Your task to perform on an android device: open wifi settings Image 0: 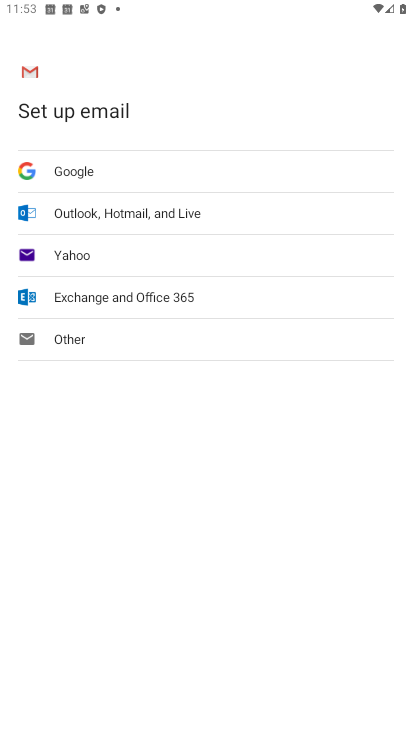
Step 0: press home button
Your task to perform on an android device: open wifi settings Image 1: 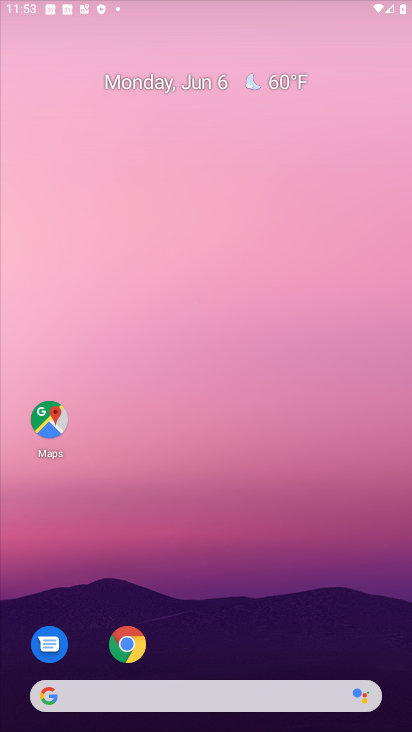
Step 1: drag from (228, 325) to (253, 67)
Your task to perform on an android device: open wifi settings Image 2: 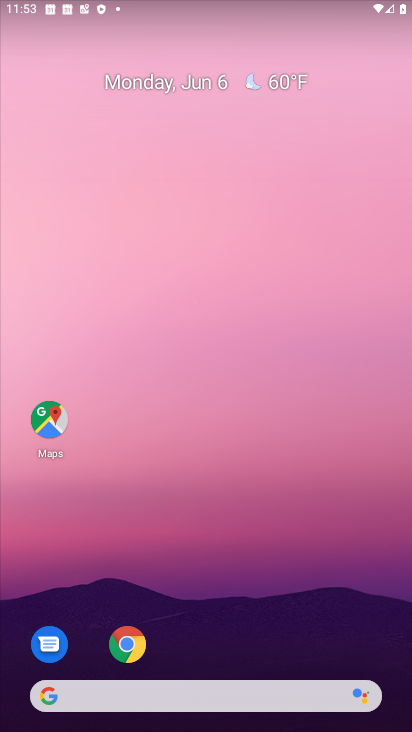
Step 2: drag from (237, 656) to (328, 77)
Your task to perform on an android device: open wifi settings Image 3: 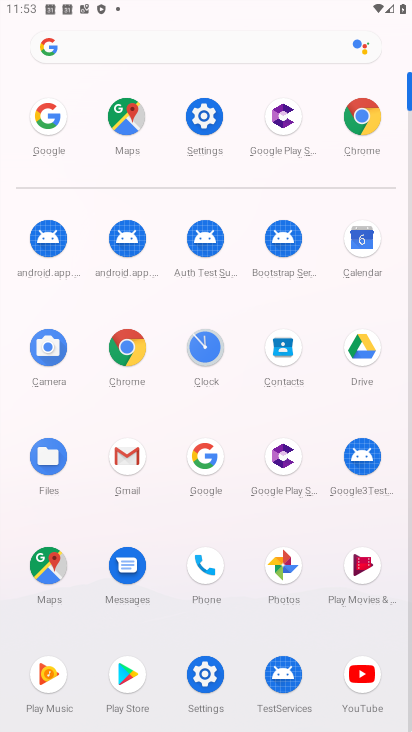
Step 3: click (204, 135)
Your task to perform on an android device: open wifi settings Image 4: 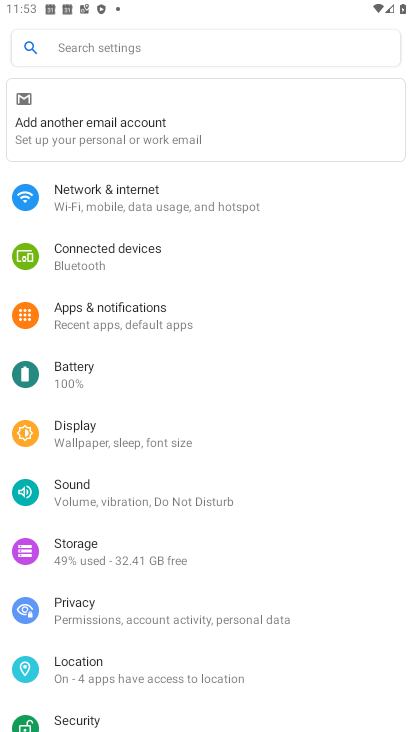
Step 4: click (191, 216)
Your task to perform on an android device: open wifi settings Image 5: 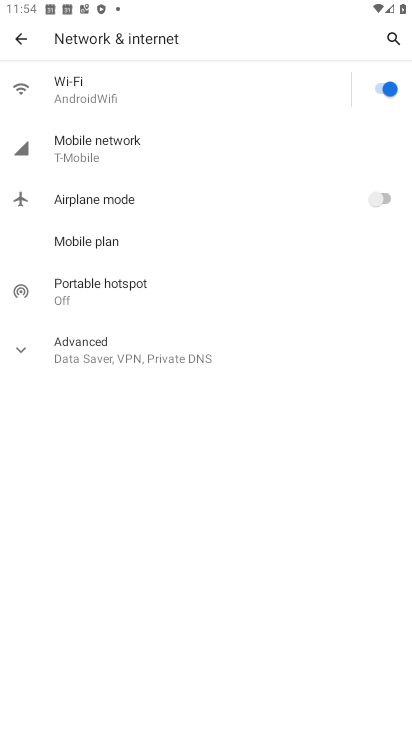
Step 5: click (204, 96)
Your task to perform on an android device: open wifi settings Image 6: 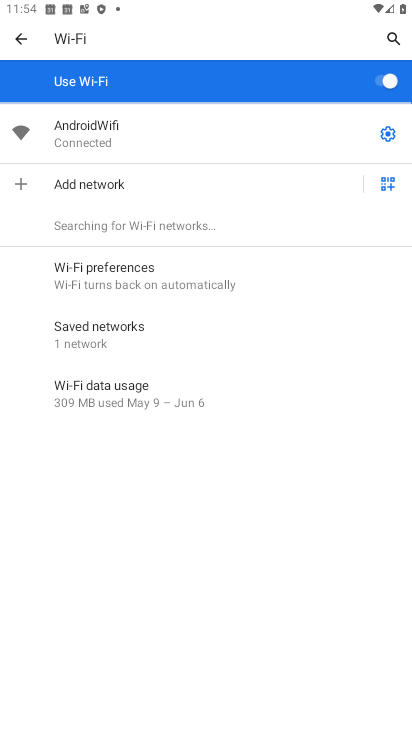
Step 6: task complete